Your task to perform on an android device: Go to battery settings Image 0: 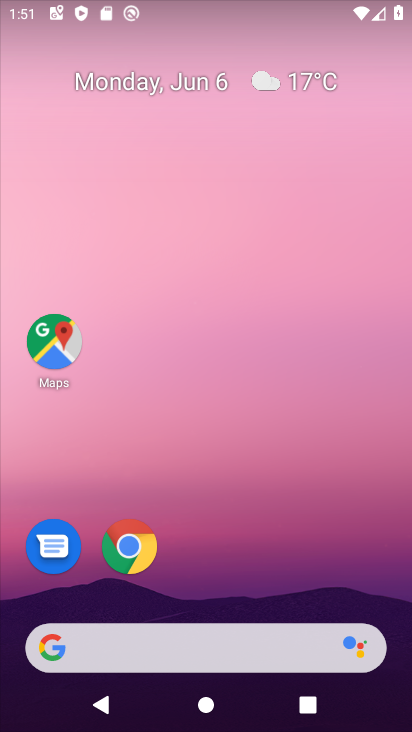
Step 0: drag from (283, 514) to (260, 200)
Your task to perform on an android device: Go to battery settings Image 1: 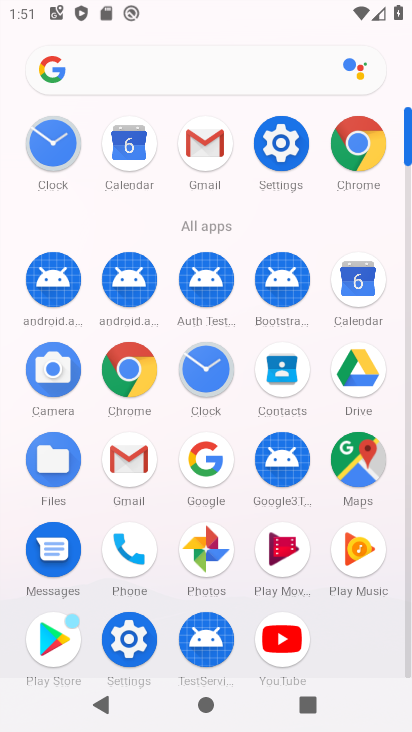
Step 1: click (284, 143)
Your task to perform on an android device: Go to battery settings Image 2: 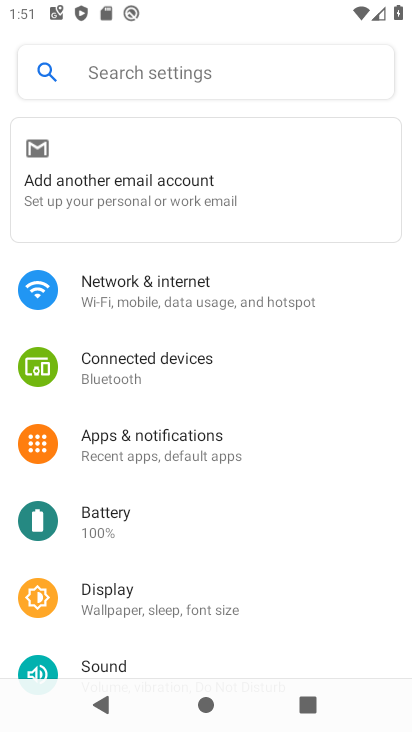
Step 2: click (99, 530)
Your task to perform on an android device: Go to battery settings Image 3: 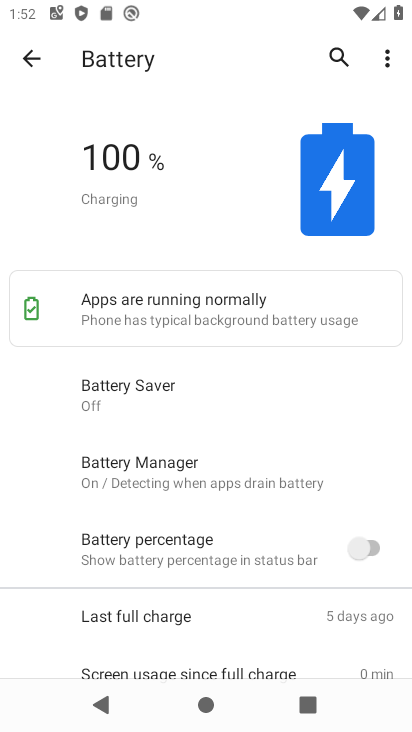
Step 3: task complete